Your task to perform on an android device: Go to eBay Image 0: 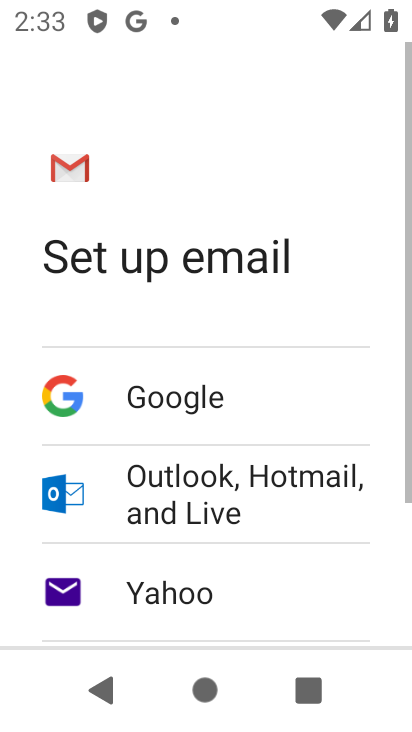
Step 0: press home button
Your task to perform on an android device: Go to eBay Image 1: 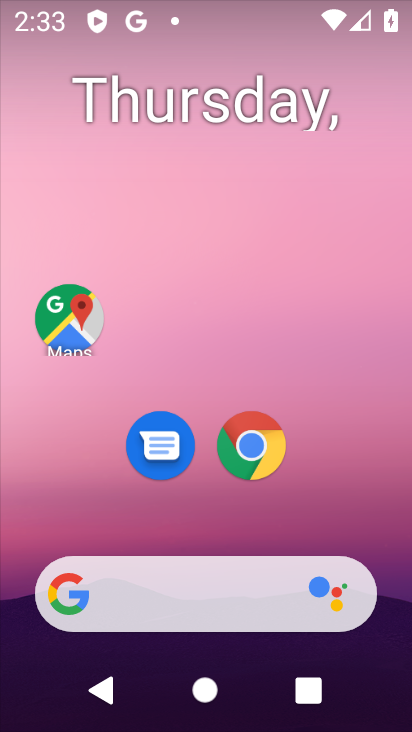
Step 1: click (264, 442)
Your task to perform on an android device: Go to eBay Image 2: 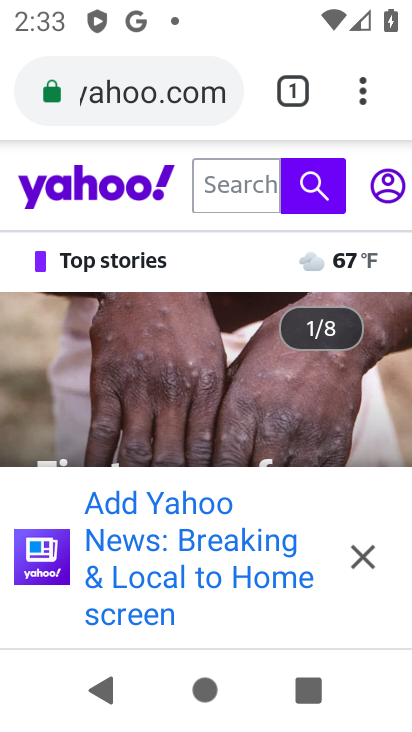
Step 2: click (176, 96)
Your task to perform on an android device: Go to eBay Image 3: 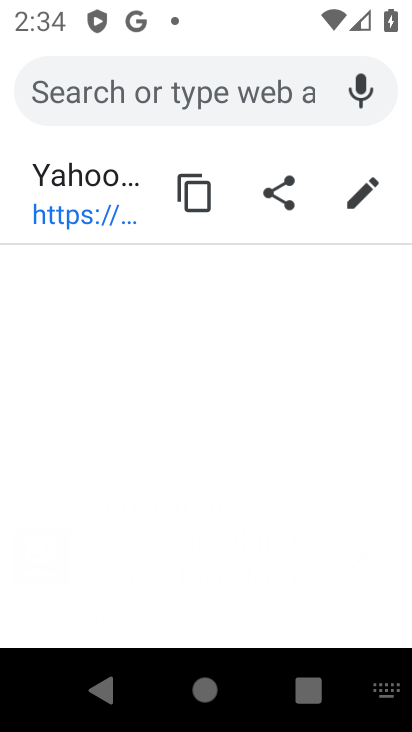
Step 3: type "eBay"
Your task to perform on an android device: Go to eBay Image 4: 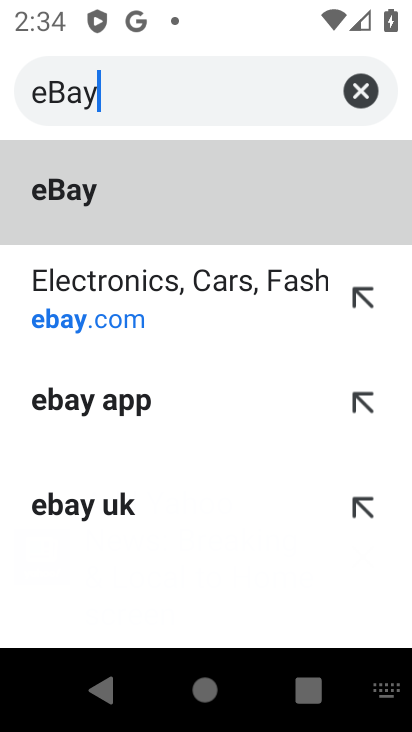
Step 4: click (170, 209)
Your task to perform on an android device: Go to eBay Image 5: 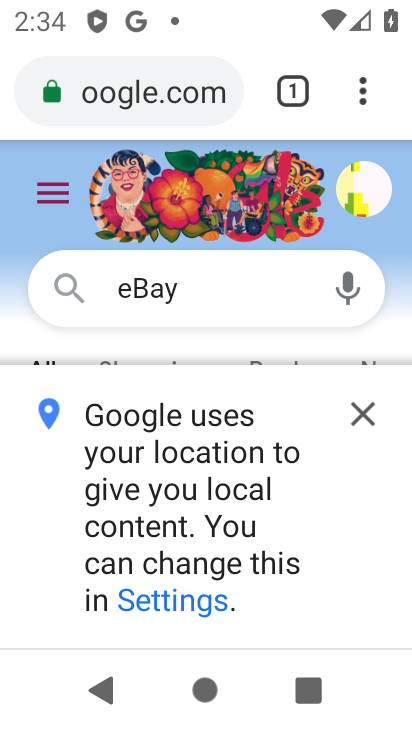
Step 5: click (365, 414)
Your task to perform on an android device: Go to eBay Image 6: 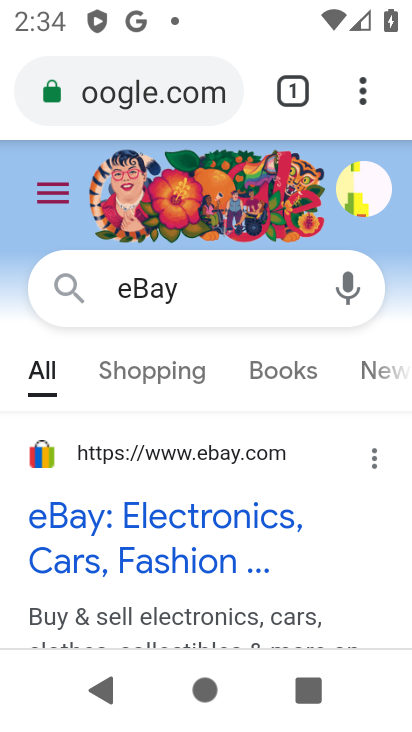
Step 6: task complete